Your task to perform on an android device: Open settings Image 0: 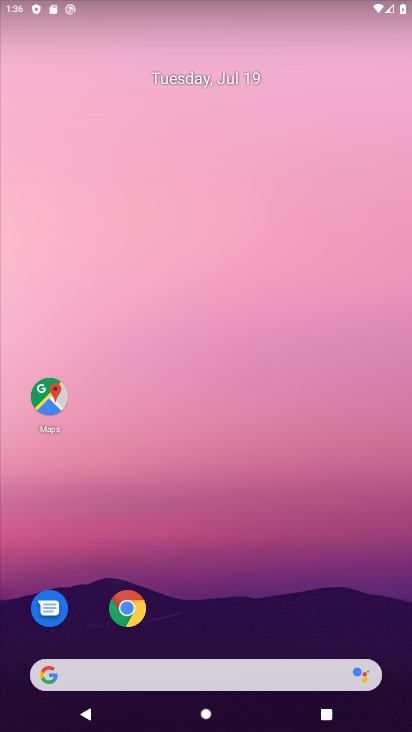
Step 0: drag from (241, 611) to (254, 262)
Your task to perform on an android device: Open settings Image 1: 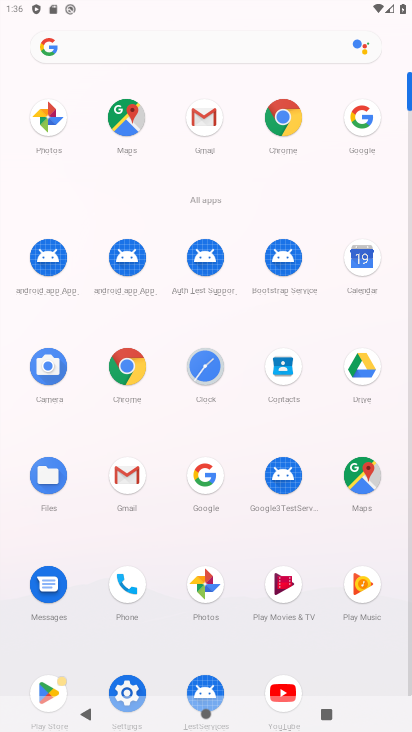
Step 1: click (100, 681)
Your task to perform on an android device: Open settings Image 2: 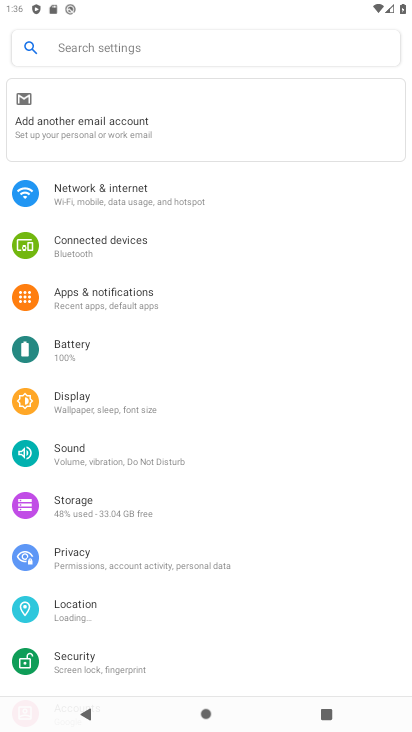
Step 2: task complete